Your task to perform on an android device: stop showing notifications on the lock screen Image 0: 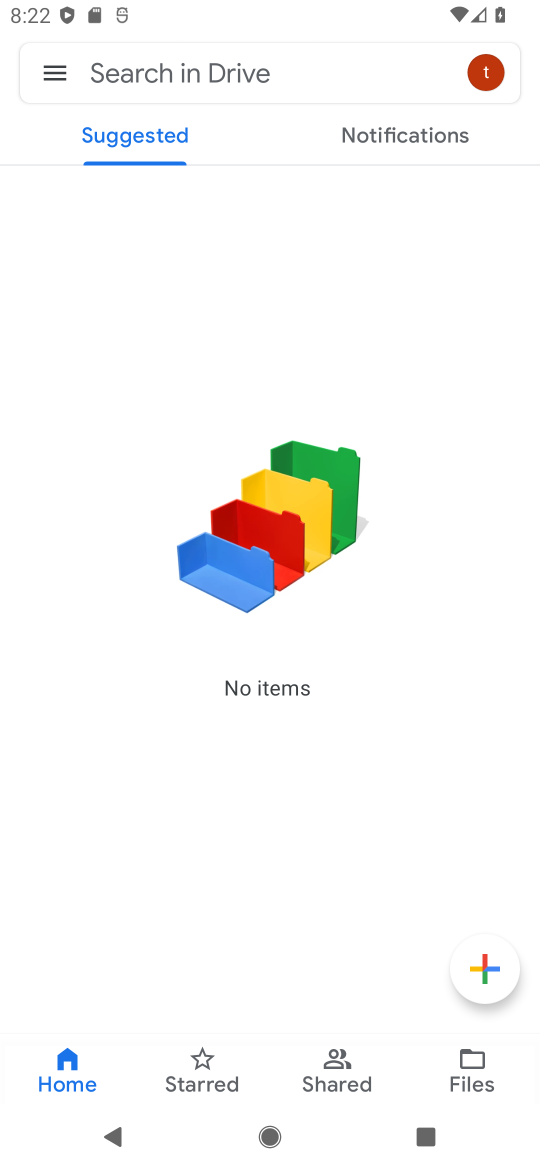
Step 0: press home button
Your task to perform on an android device: stop showing notifications on the lock screen Image 1: 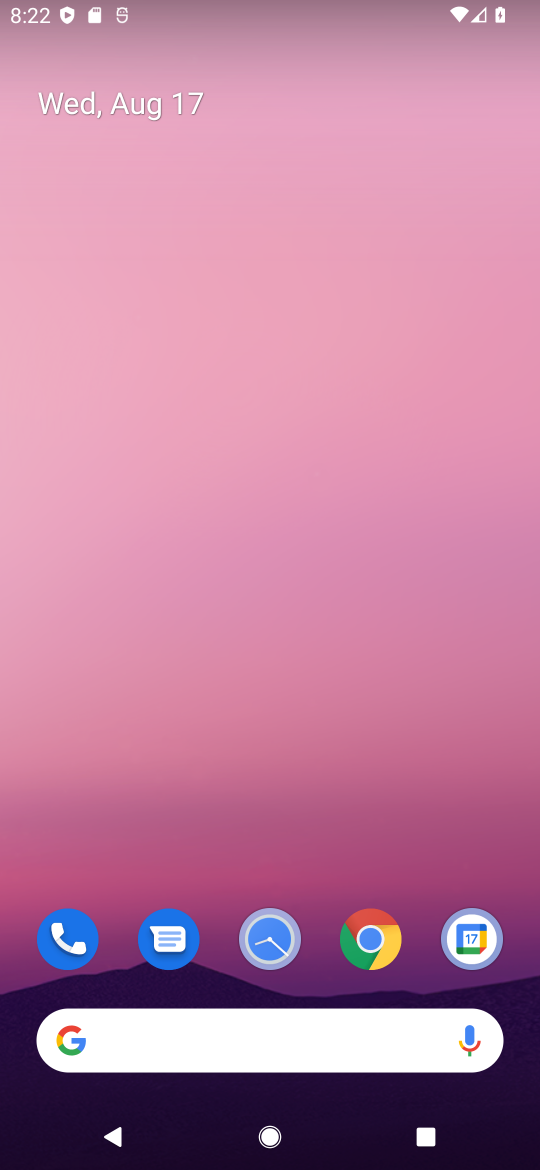
Step 1: drag from (360, 855) to (446, 8)
Your task to perform on an android device: stop showing notifications on the lock screen Image 2: 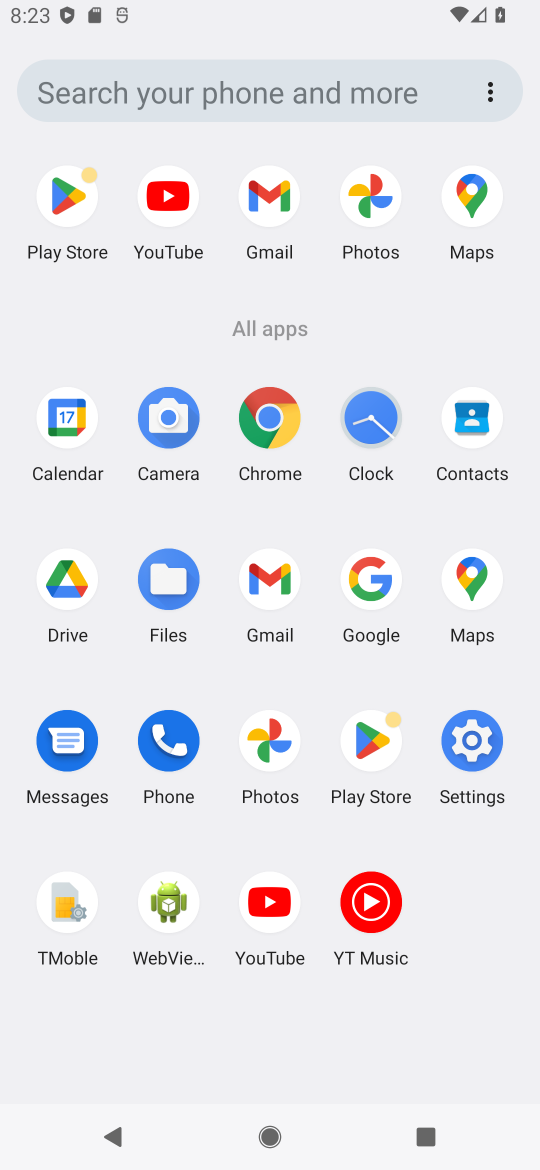
Step 2: click (473, 720)
Your task to perform on an android device: stop showing notifications on the lock screen Image 3: 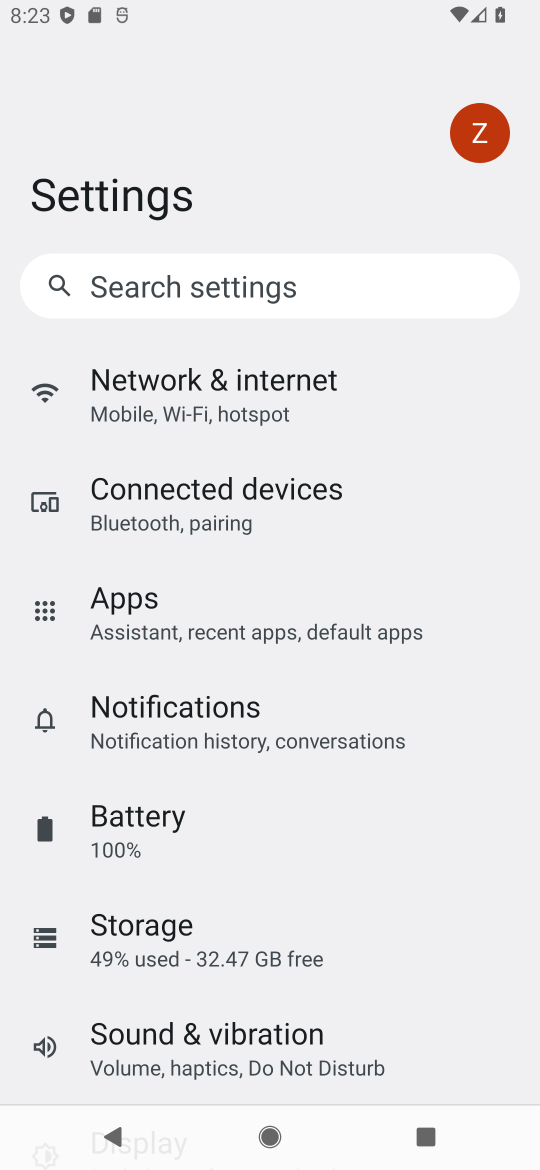
Step 3: click (200, 718)
Your task to perform on an android device: stop showing notifications on the lock screen Image 4: 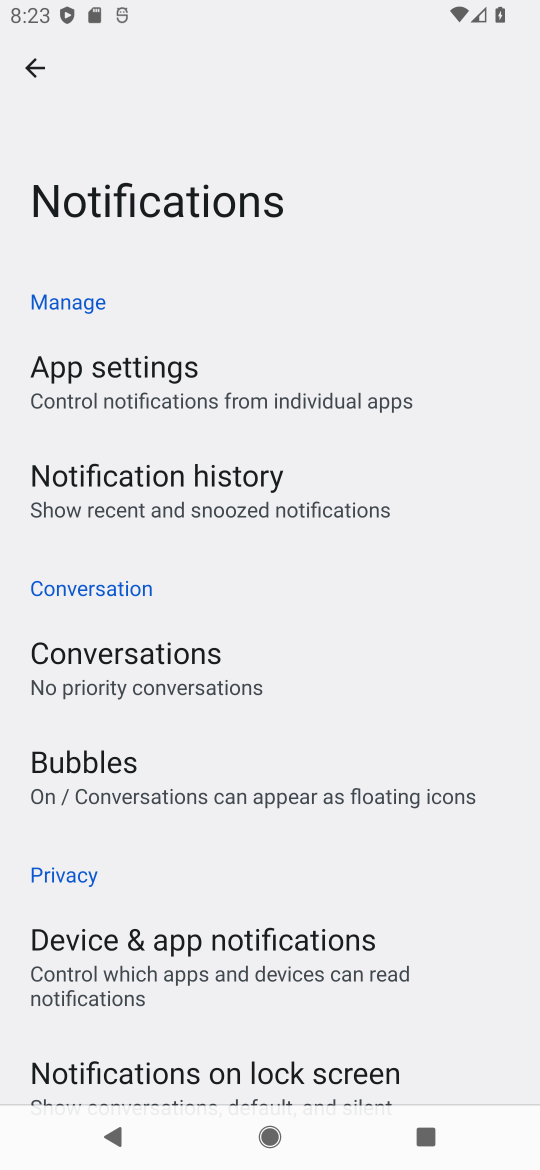
Step 4: drag from (325, 905) to (325, 493)
Your task to perform on an android device: stop showing notifications on the lock screen Image 5: 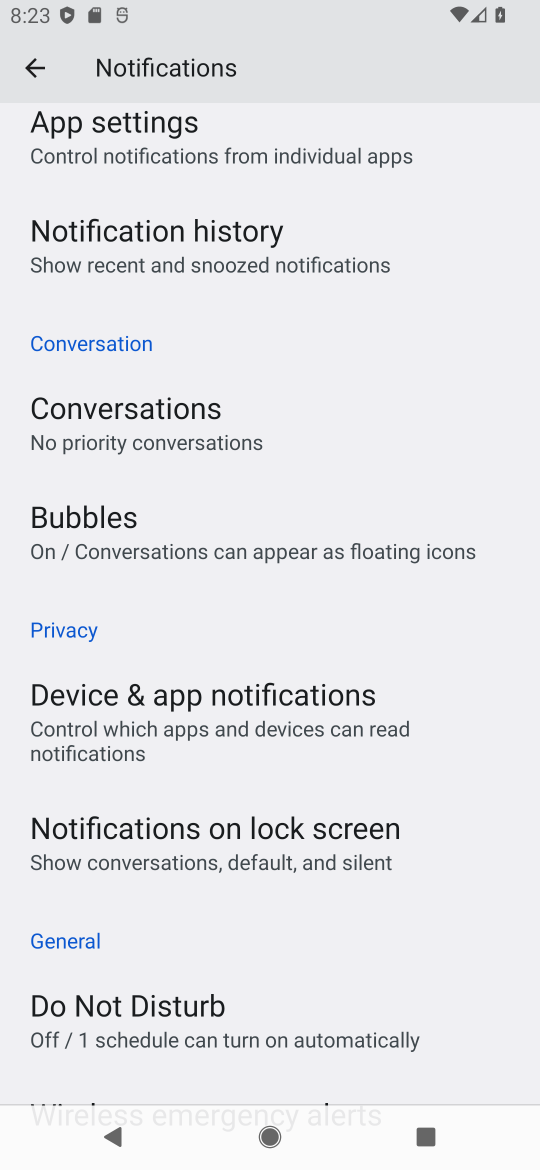
Step 5: click (241, 840)
Your task to perform on an android device: stop showing notifications on the lock screen Image 6: 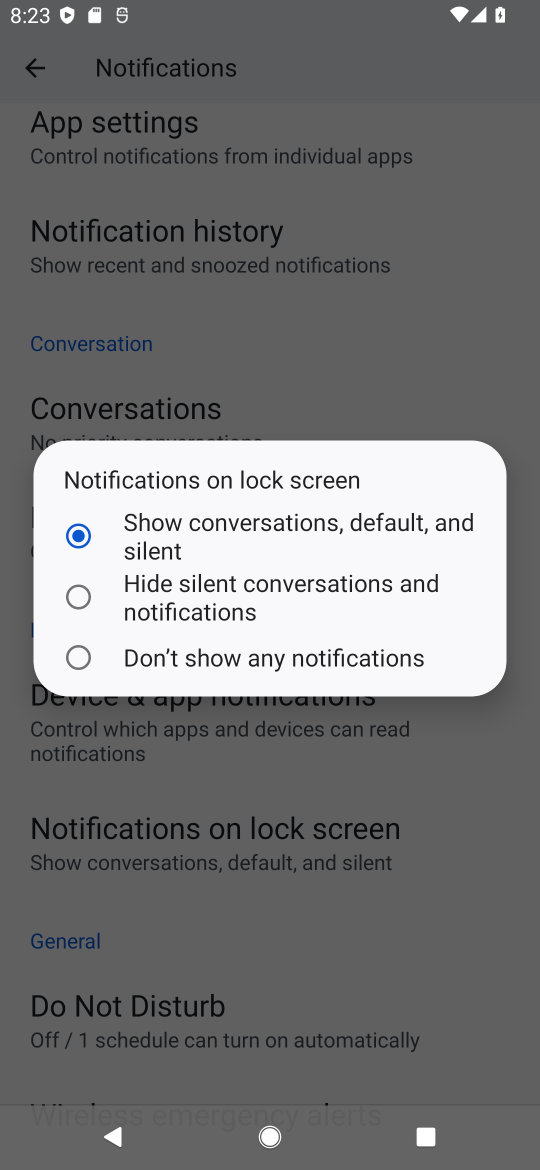
Step 6: click (194, 656)
Your task to perform on an android device: stop showing notifications on the lock screen Image 7: 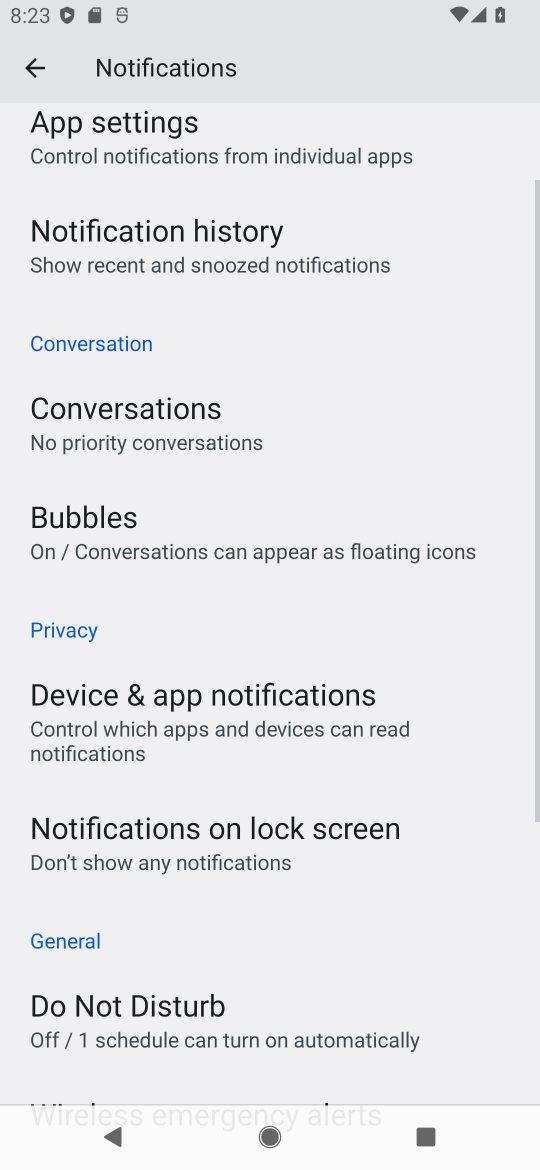
Step 7: task complete